Your task to perform on an android device: Open battery settings Image 0: 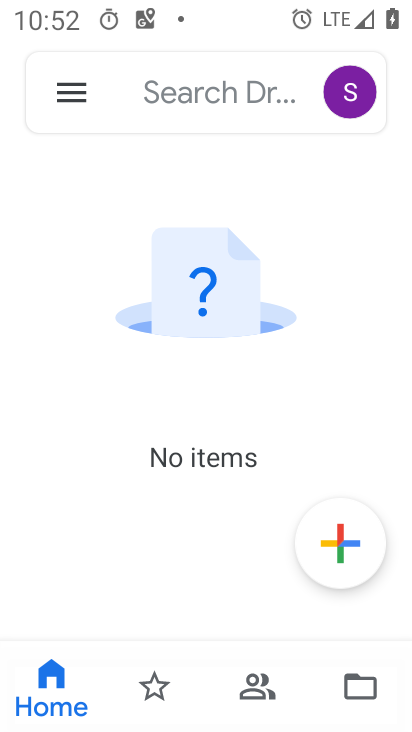
Step 0: press home button
Your task to perform on an android device: Open battery settings Image 1: 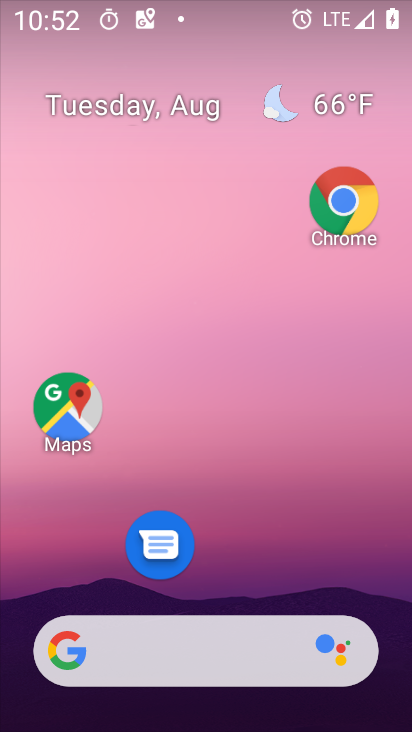
Step 1: drag from (200, 642) to (181, 17)
Your task to perform on an android device: Open battery settings Image 2: 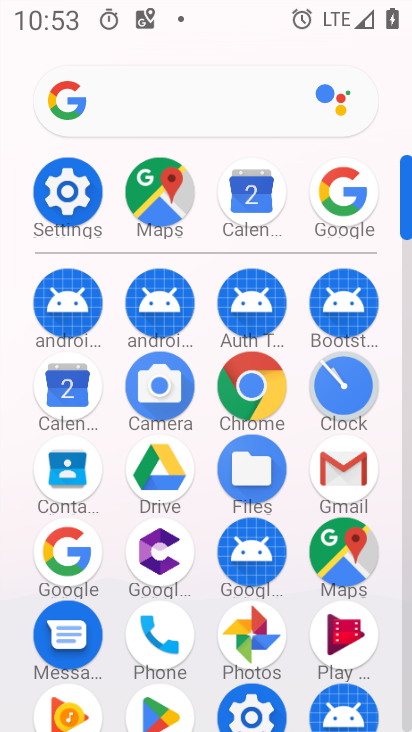
Step 2: click (67, 208)
Your task to perform on an android device: Open battery settings Image 3: 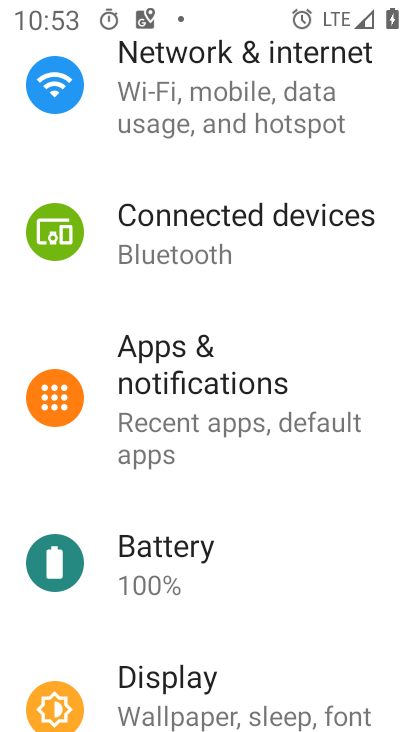
Step 3: click (205, 547)
Your task to perform on an android device: Open battery settings Image 4: 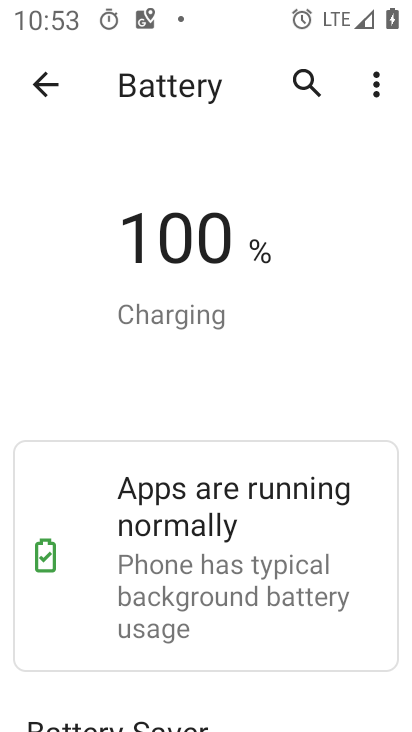
Step 4: task complete